Your task to perform on an android device: toggle translation in the chrome app Image 0: 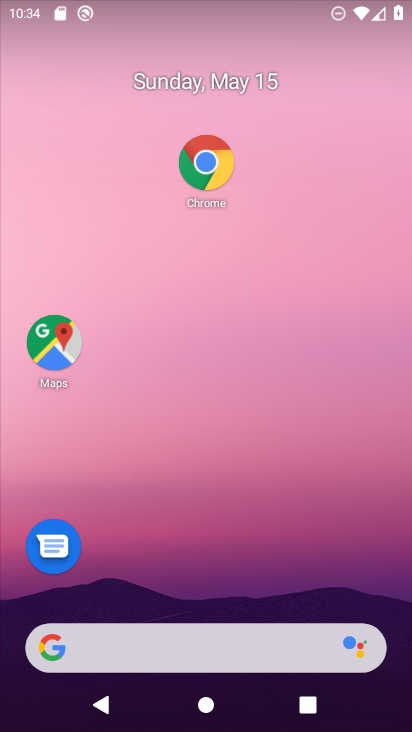
Step 0: drag from (304, 551) to (315, 237)
Your task to perform on an android device: toggle translation in the chrome app Image 1: 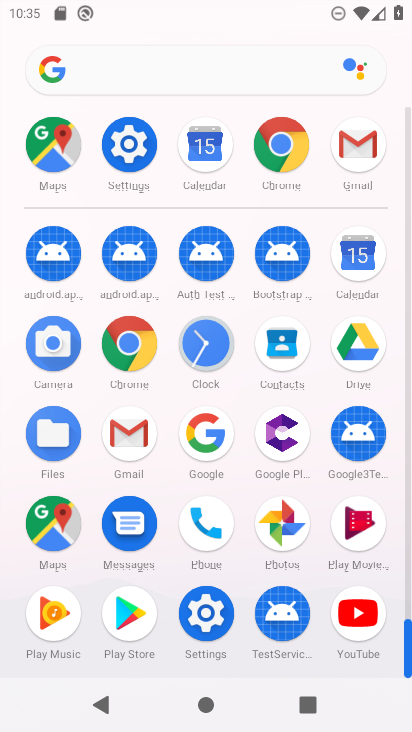
Step 1: click (268, 136)
Your task to perform on an android device: toggle translation in the chrome app Image 2: 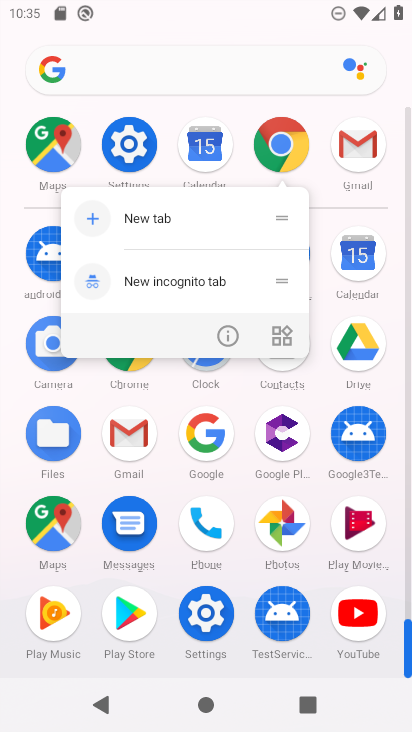
Step 2: click (277, 142)
Your task to perform on an android device: toggle translation in the chrome app Image 3: 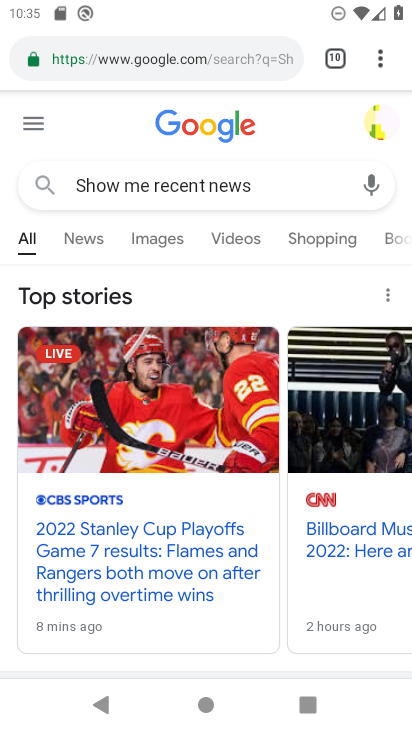
Step 3: click (372, 56)
Your task to perform on an android device: toggle translation in the chrome app Image 4: 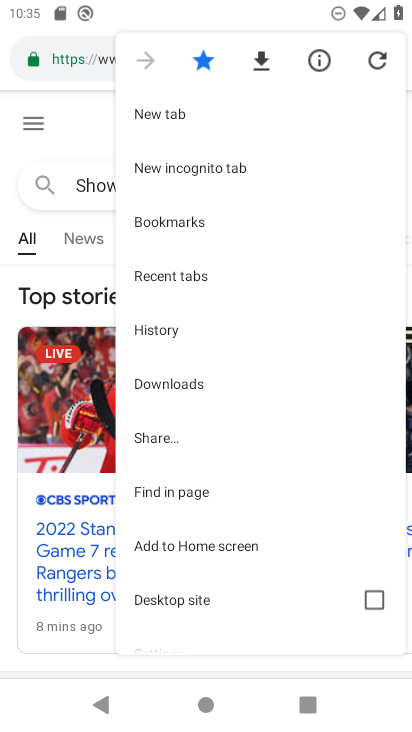
Step 4: drag from (198, 569) to (238, 268)
Your task to perform on an android device: toggle translation in the chrome app Image 5: 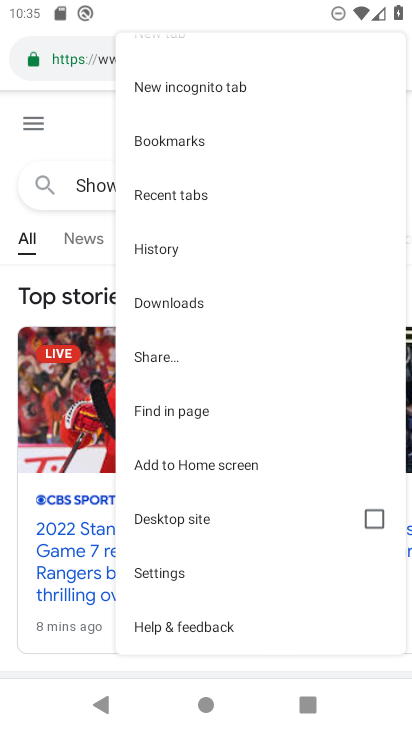
Step 5: click (179, 568)
Your task to perform on an android device: toggle translation in the chrome app Image 6: 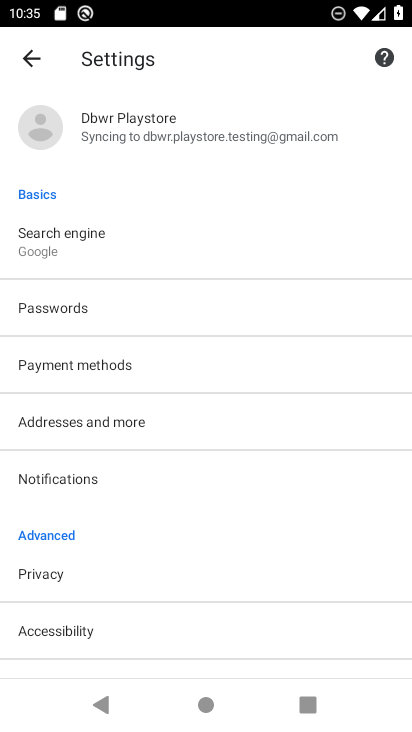
Step 6: drag from (171, 564) to (226, 265)
Your task to perform on an android device: toggle translation in the chrome app Image 7: 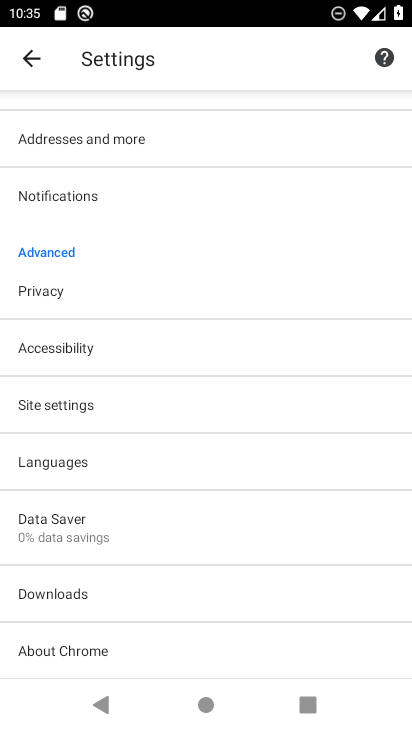
Step 7: click (79, 463)
Your task to perform on an android device: toggle translation in the chrome app Image 8: 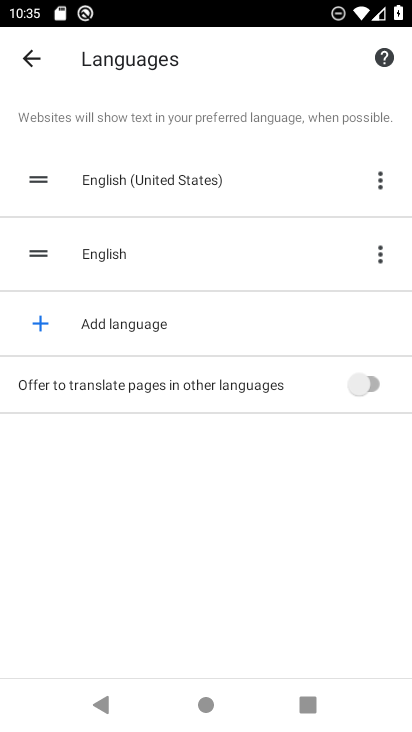
Step 8: click (370, 376)
Your task to perform on an android device: toggle translation in the chrome app Image 9: 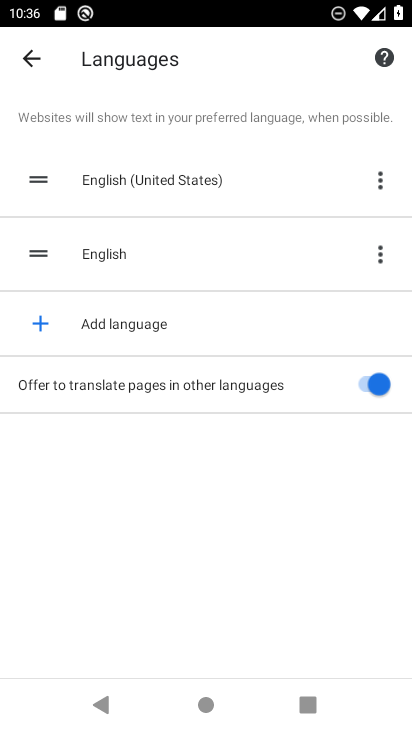
Step 9: task complete